Your task to perform on an android device: find snoozed emails in the gmail app Image 0: 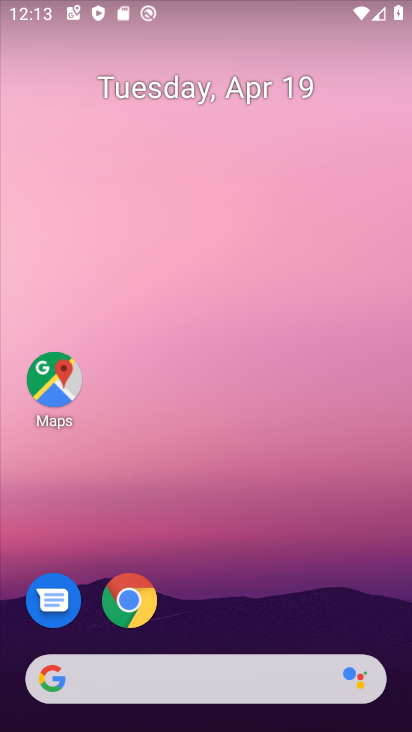
Step 0: drag from (230, 632) to (214, 156)
Your task to perform on an android device: find snoozed emails in the gmail app Image 1: 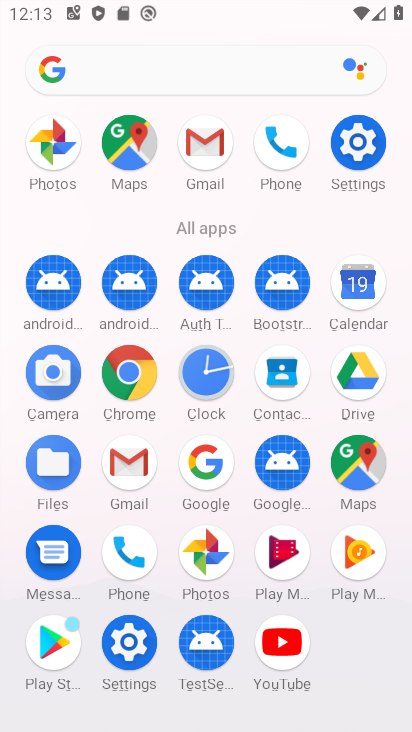
Step 1: click (208, 159)
Your task to perform on an android device: find snoozed emails in the gmail app Image 2: 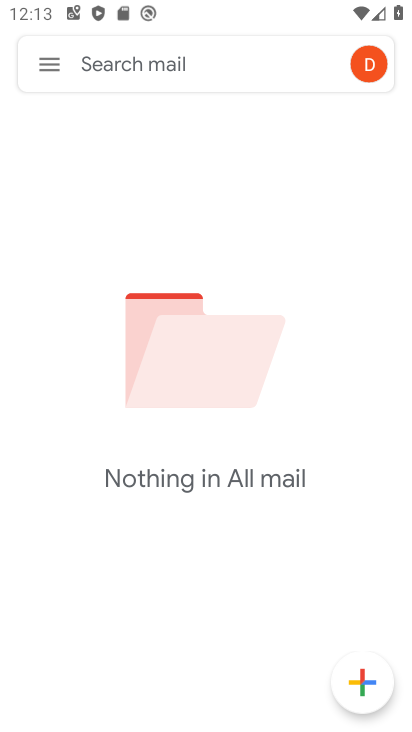
Step 2: click (56, 68)
Your task to perform on an android device: find snoozed emails in the gmail app Image 3: 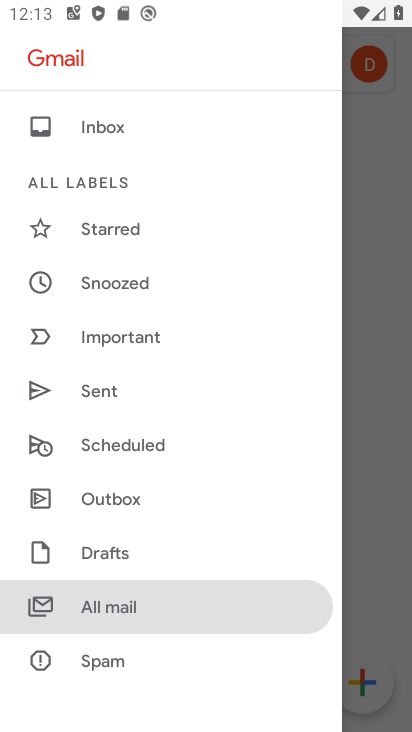
Step 3: click (121, 280)
Your task to perform on an android device: find snoozed emails in the gmail app Image 4: 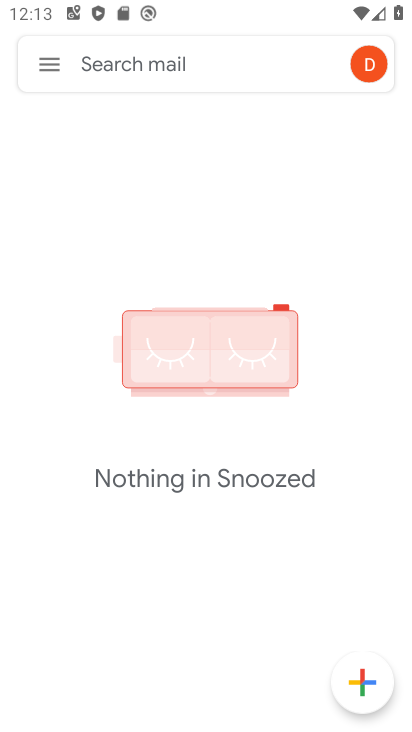
Step 4: task complete